Your task to perform on an android device: turn off improve location accuracy Image 0: 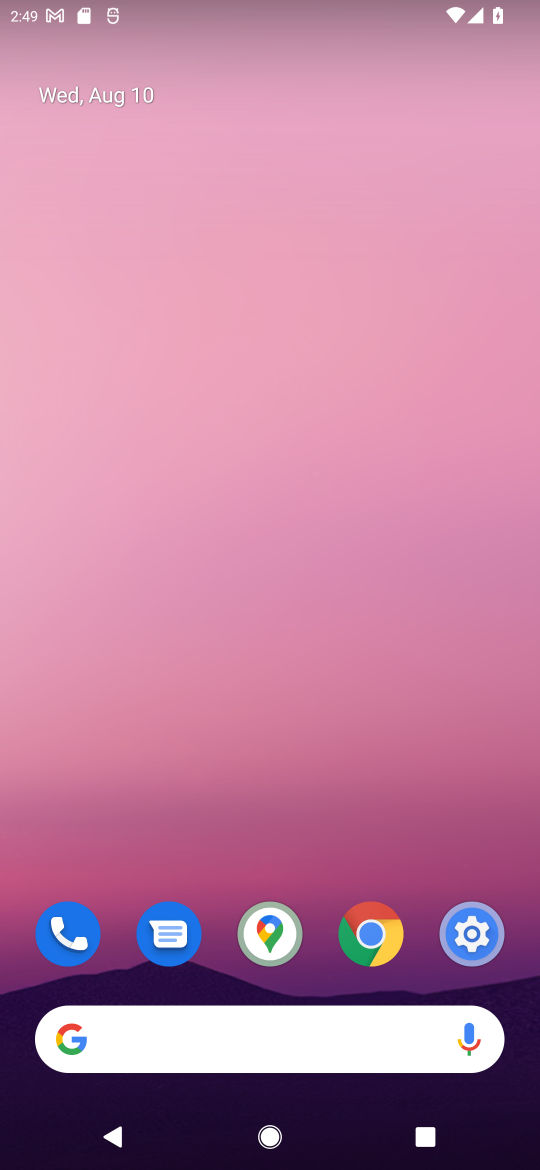
Step 0: drag from (70, 1120) to (281, 620)
Your task to perform on an android device: turn off improve location accuracy Image 1: 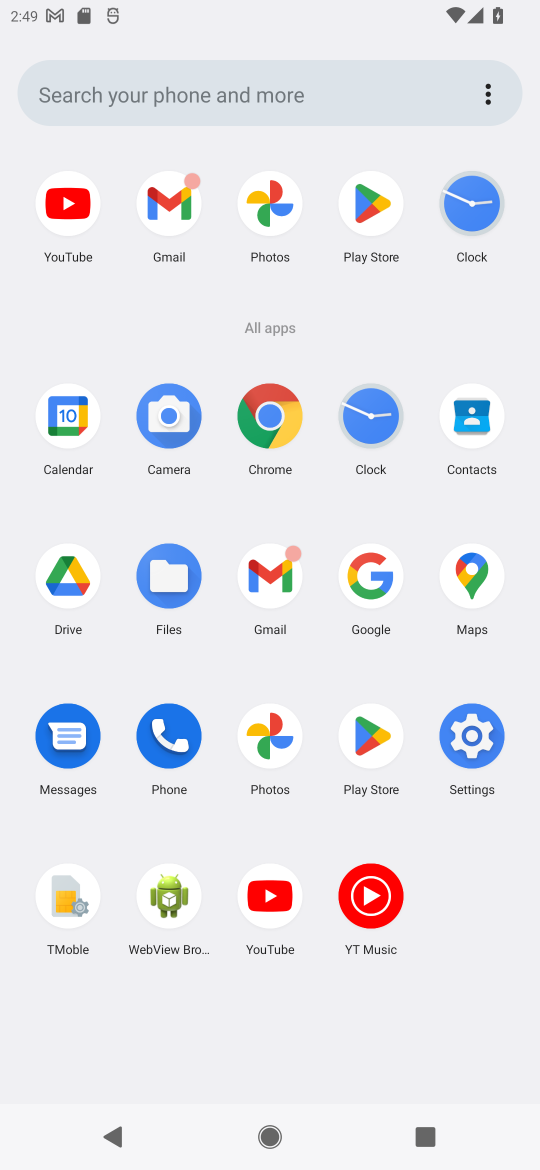
Step 1: click (467, 740)
Your task to perform on an android device: turn off improve location accuracy Image 2: 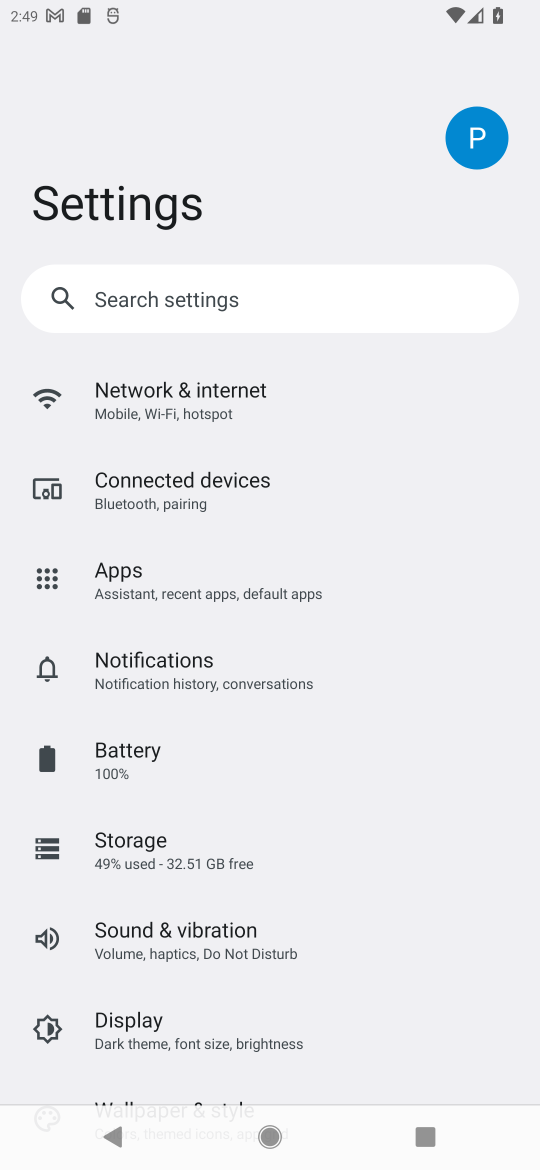
Step 2: drag from (342, 1003) to (392, 322)
Your task to perform on an android device: turn off improve location accuracy Image 3: 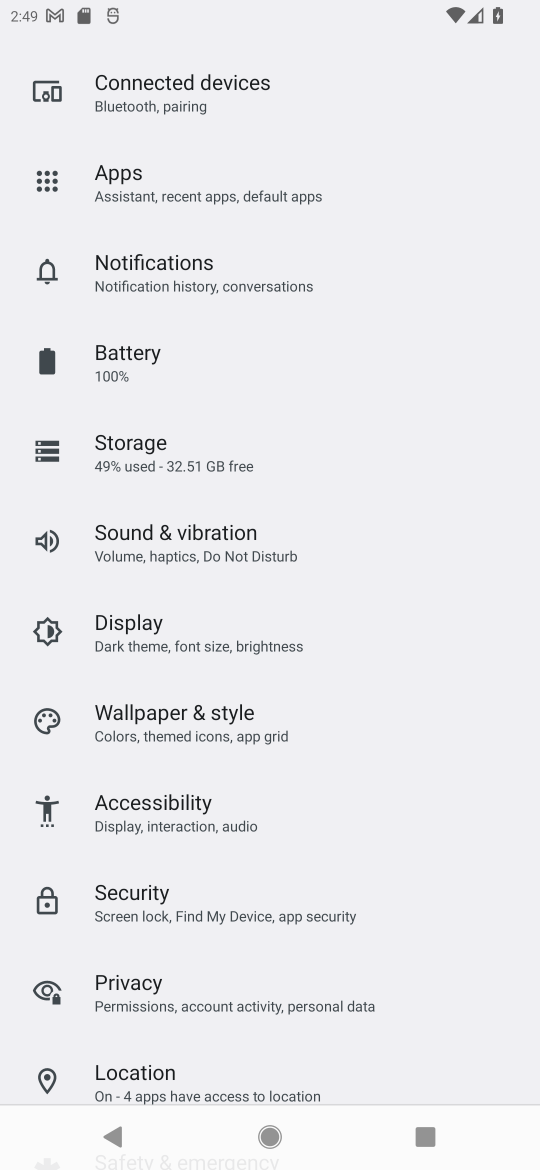
Step 3: click (129, 1079)
Your task to perform on an android device: turn off improve location accuracy Image 4: 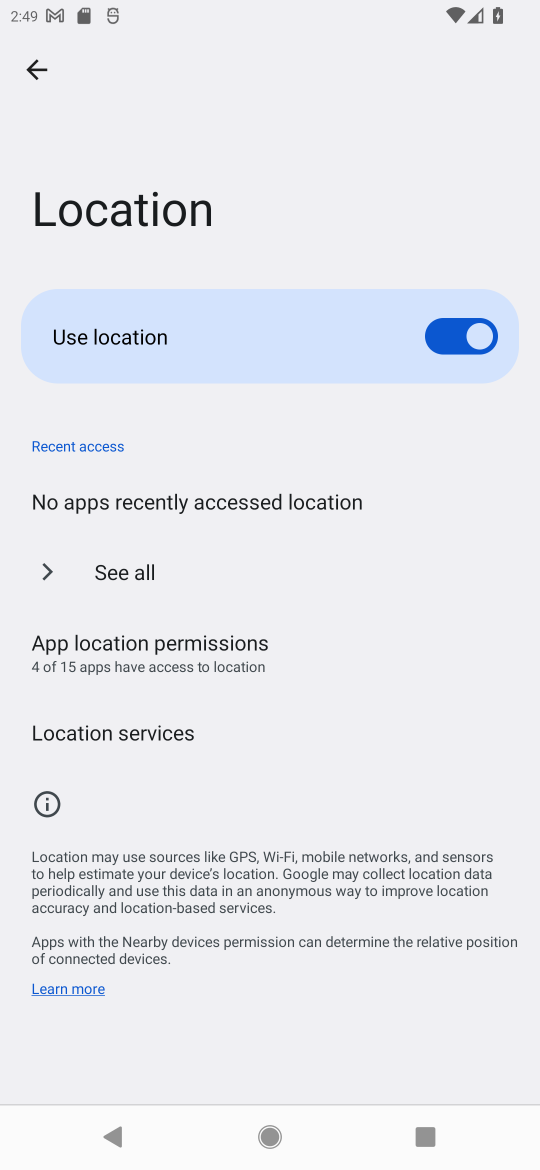
Step 4: click (138, 723)
Your task to perform on an android device: turn off improve location accuracy Image 5: 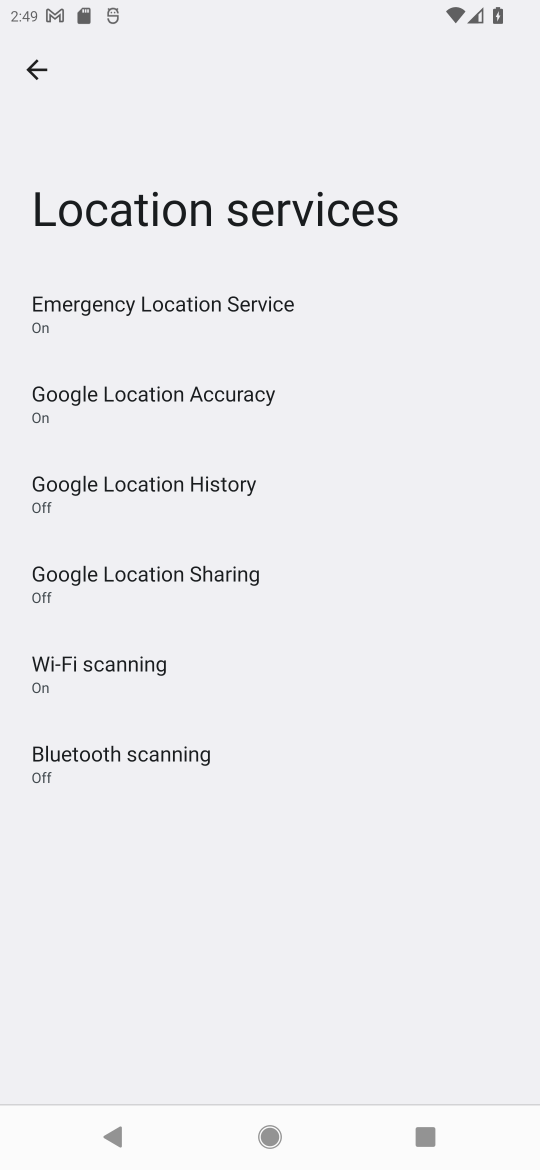
Step 5: click (106, 424)
Your task to perform on an android device: turn off improve location accuracy Image 6: 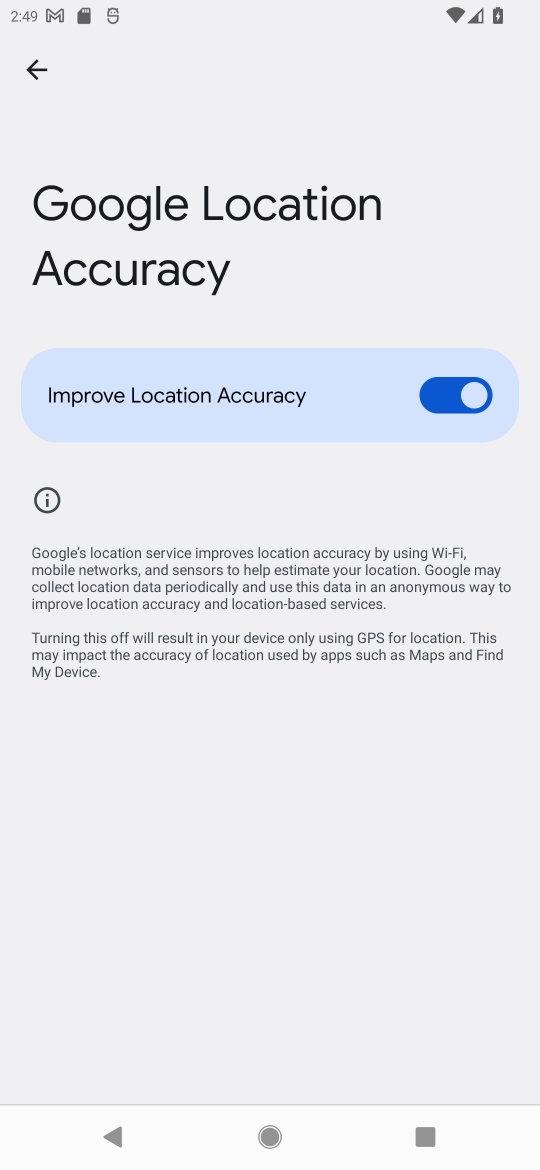
Step 6: click (477, 402)
Your task to perform on an android device: turn off improve location accuracy Image 7: 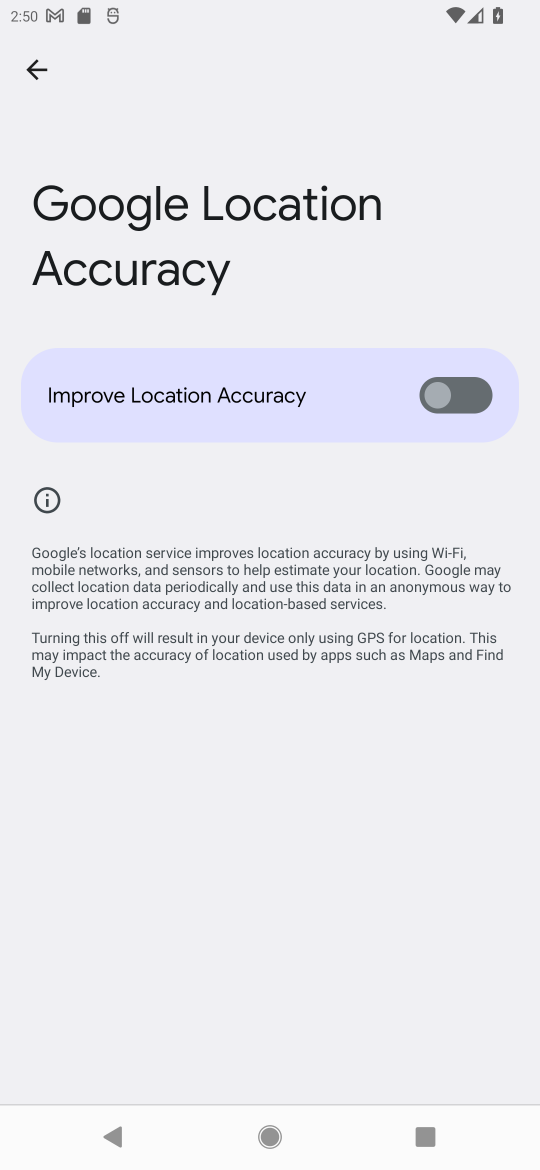
Step 7: task complete